Your task to perform on an android device: See recent photos Image 0: 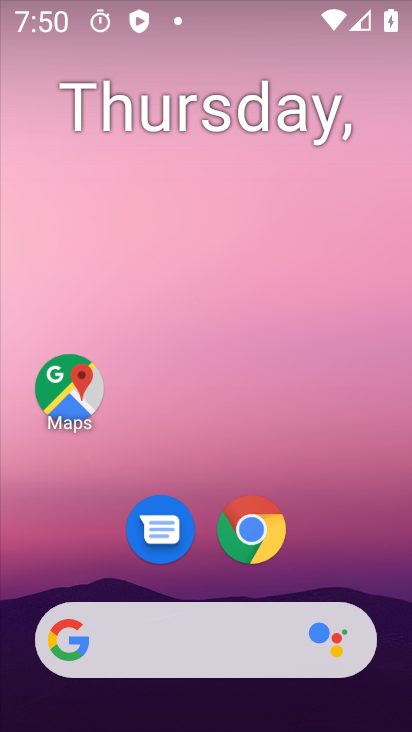
Step 0: drag from (398, 713) to (371, 114)
Your task to perform on an android device: See recent photos Image 1: 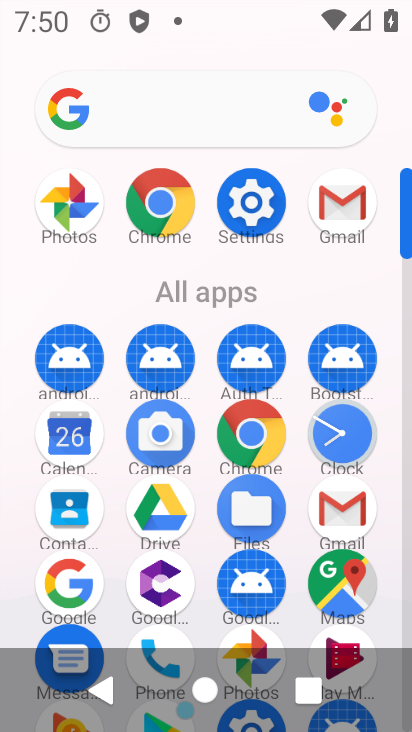
Step 1: click (57, 208)
Your task to perform on an android device: See recent photos Image 2: 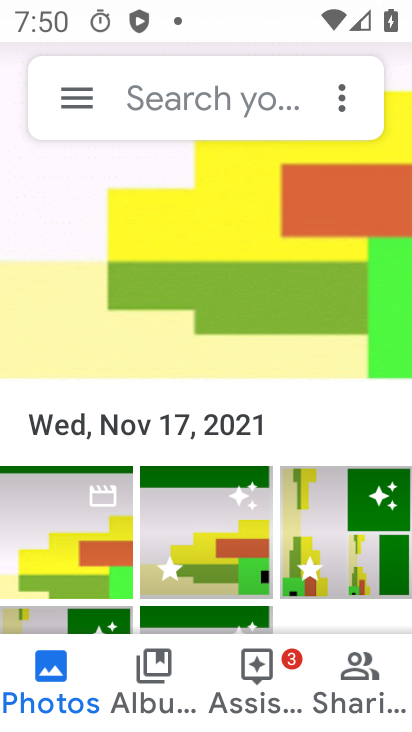
Step 2: click (64, 509)
Your task to perform on an android device: See recent photos Image 3: 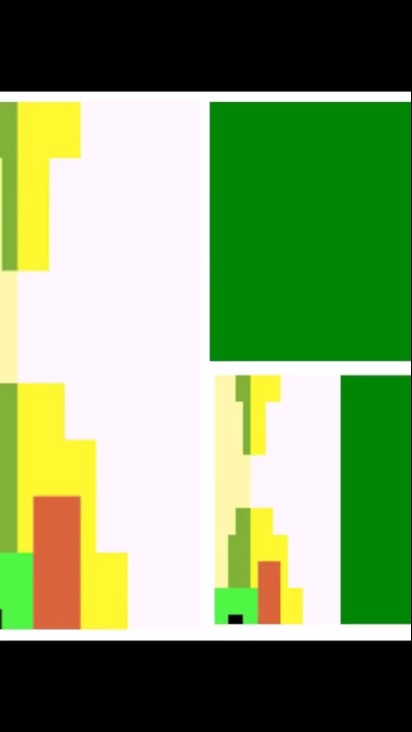
Step 3: click (395, 379)
Your task to perform on an android device: See recent photos Image 4: 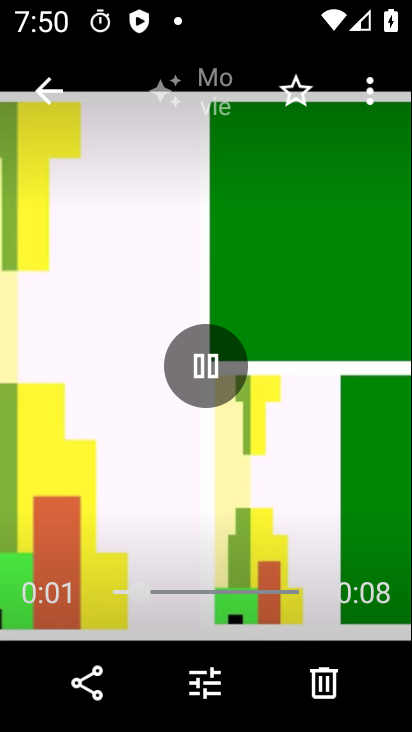
Step 4: click (402, 387)
Your task to perform on an android device: See recent photos Image 5: 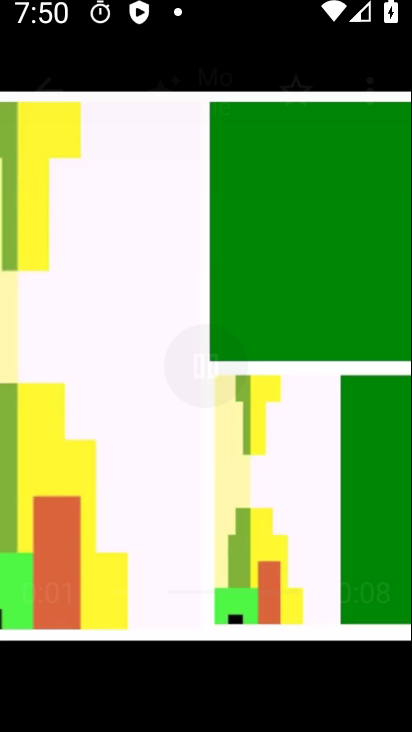
Step 5: click (402, 387)
Your task to perform on an android device: See recent photos Image 6: 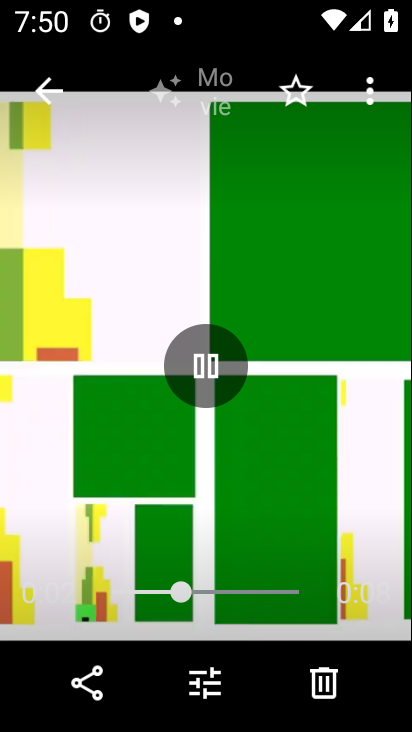
Step 6: click (408, 374)
Your task to perform on an android device: See recent photos Image 7: 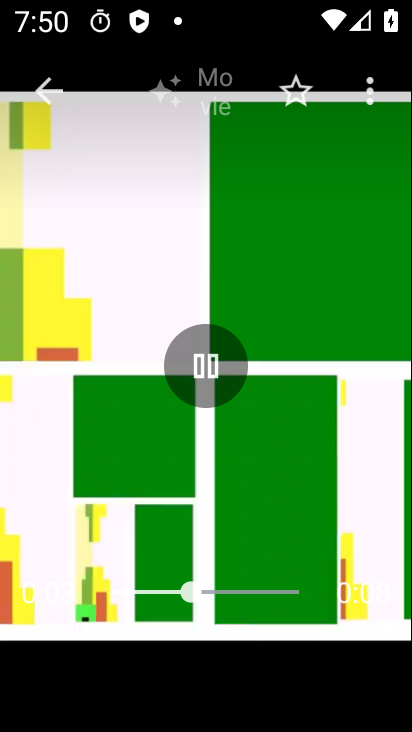
Step 7: click (408, 374)
Your task to perform on an android device: See recent photos Image 8: 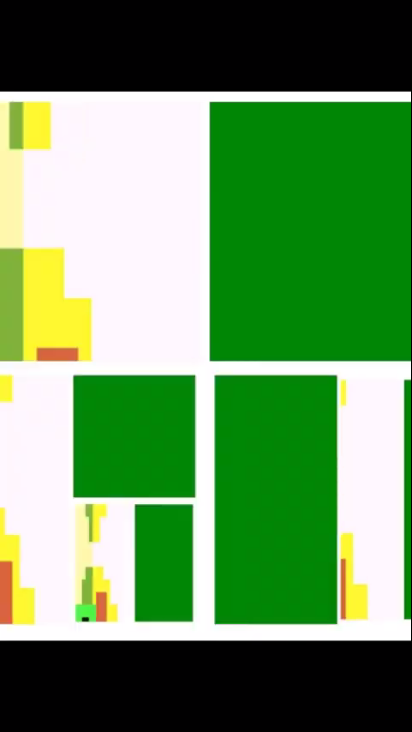
Step 8: click (408, 374)
Your task to perform on an android device: See recent photos Image 9: 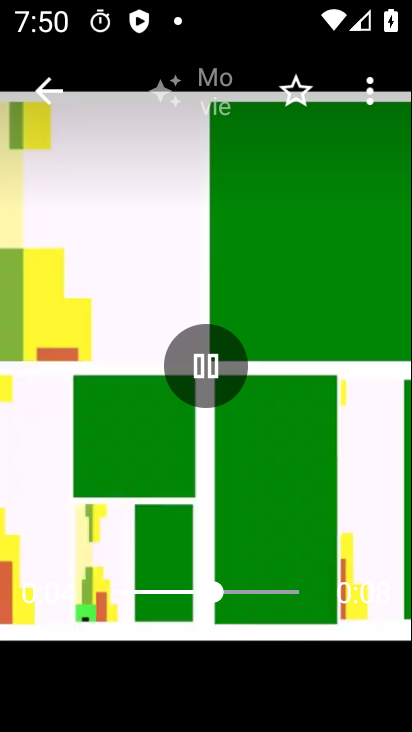
Step 9: click (408, 374)
Your task to perform on an android device: See recent photos Image 10: 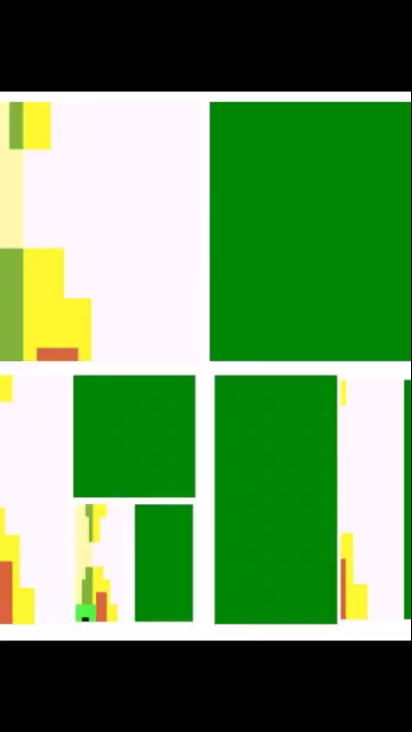
Step 10: click (408, 374)
Your task to perform on an android device: See recent photos Image 11: 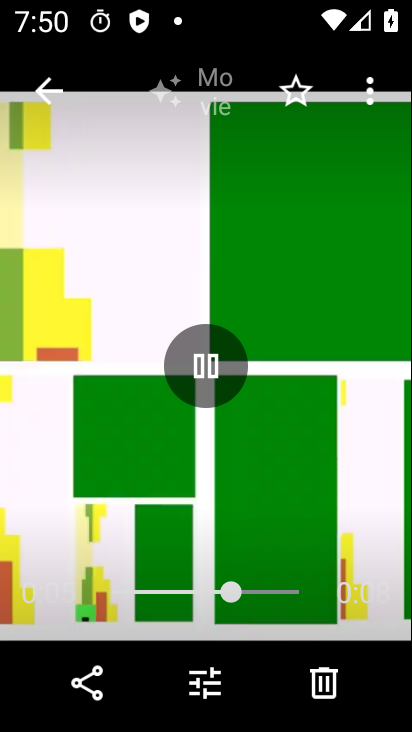
Step 11: click (408, 374)
Your task to perform on an android device: See recent photos Image 12: 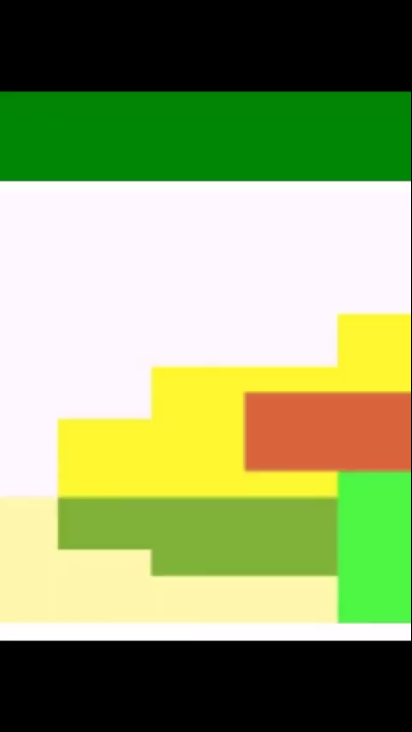
Step 12: click (408, 374)
Your task to perform on an android device: See recent photos Image 13: 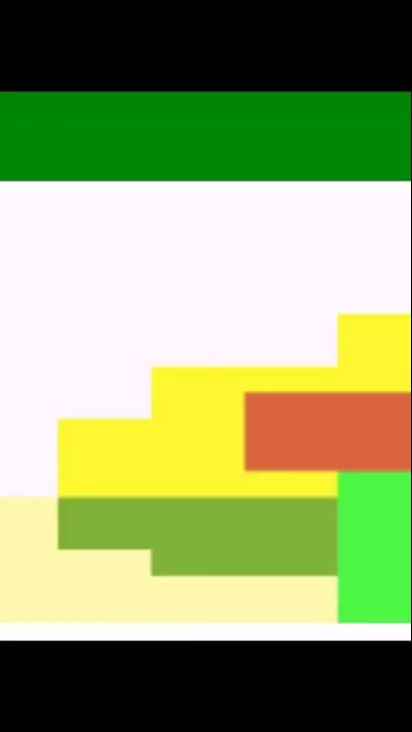
Step 13: task complete